Your task to perform on an android device: change the clock display to digital Image 0: 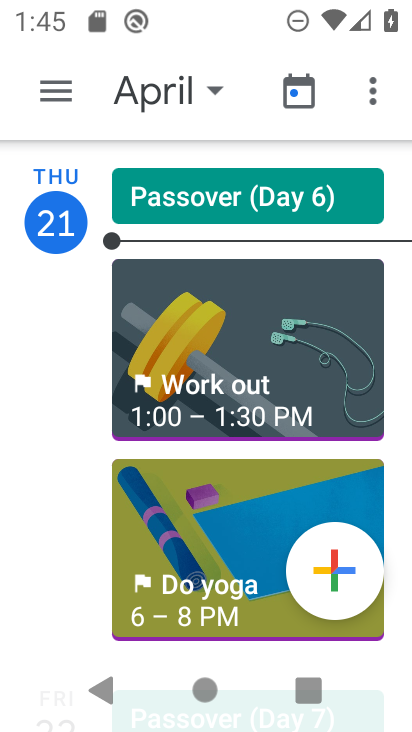
Step 0: press home button
Your task to perform on an android device: change the clock display to digital Image 1: 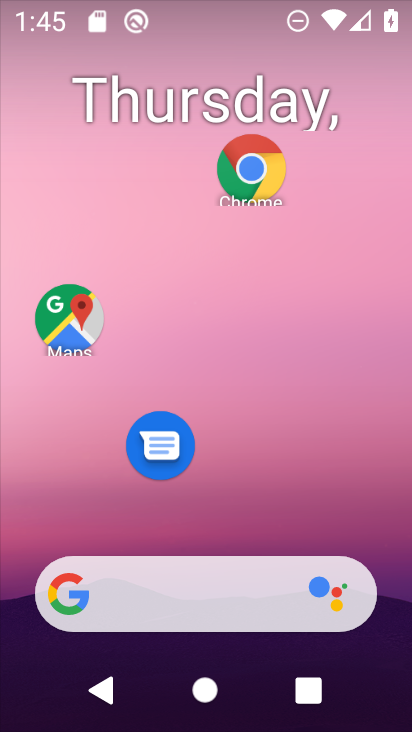
Step 1: drag from (279, 641) to (265, 88)
Your task to perform on an android device: change the clock display to digital Image 2: 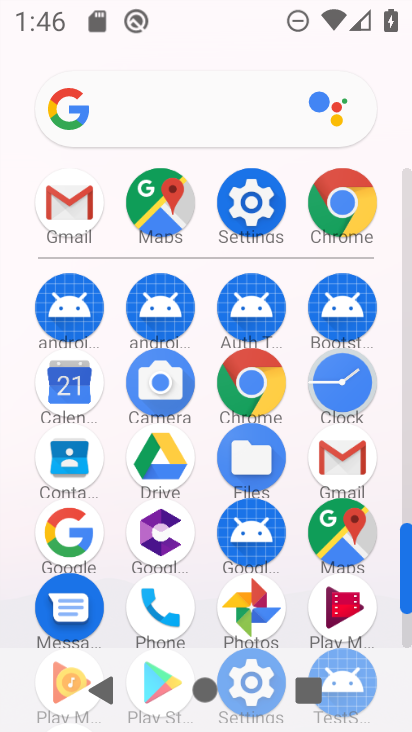
Step 2: click (345, 378)
Your task to perform on an android device: change the clock display to digital Image 3: 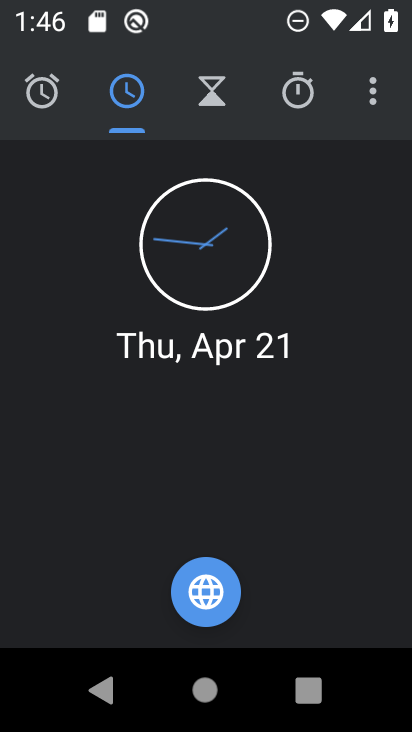
Step 3: click (372, 111)
Your task to perform on an android device: change the clock display to digital Image 4: 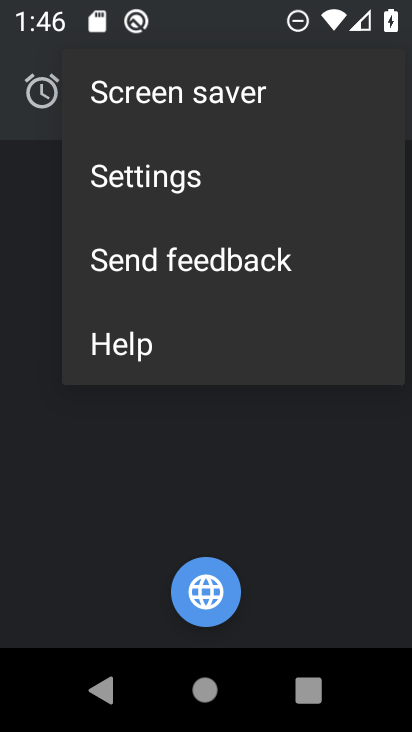
Step 4: click (153, 183)
Your task to perform on an android device: change the clock display to digital Image 5: 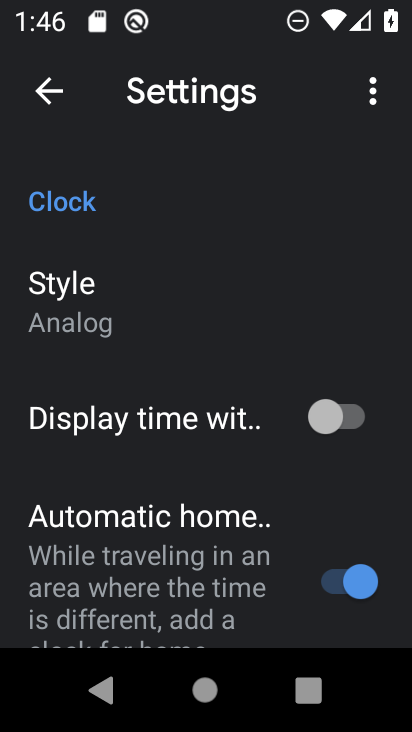
Step 5: click (86, 315)
Your task to perform on an android device: change the clock display to digital Image 6: 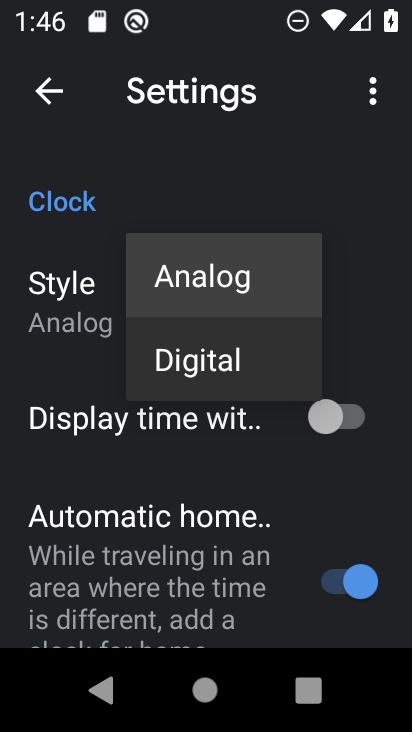
Step 6: click (181, 351)
Your task to perform on an android device: change the clock display to digital Image 7: 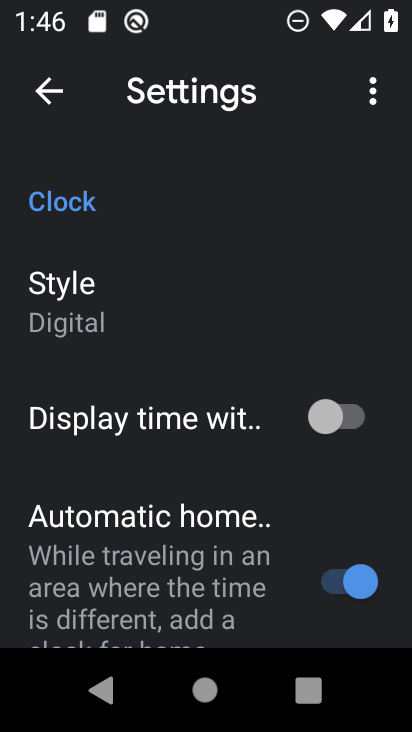
Step 7: task complete